Your task to perform on an android device: turn vacation reply on in the gmail app Image 0: 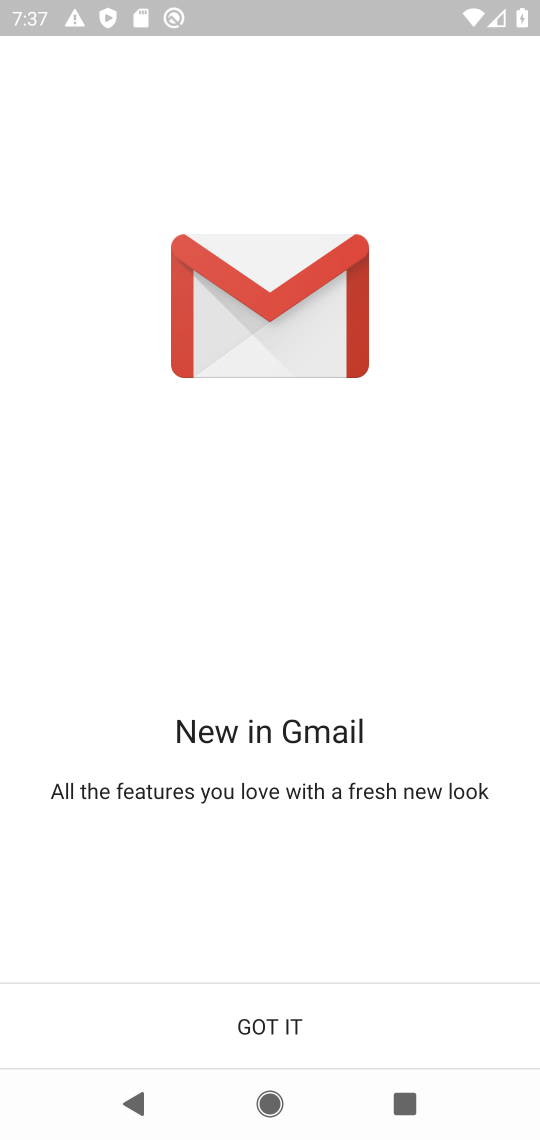
Step 0: press home button
Your task to perform on an android device: turn vacation reply on in the gmail app Image 1: 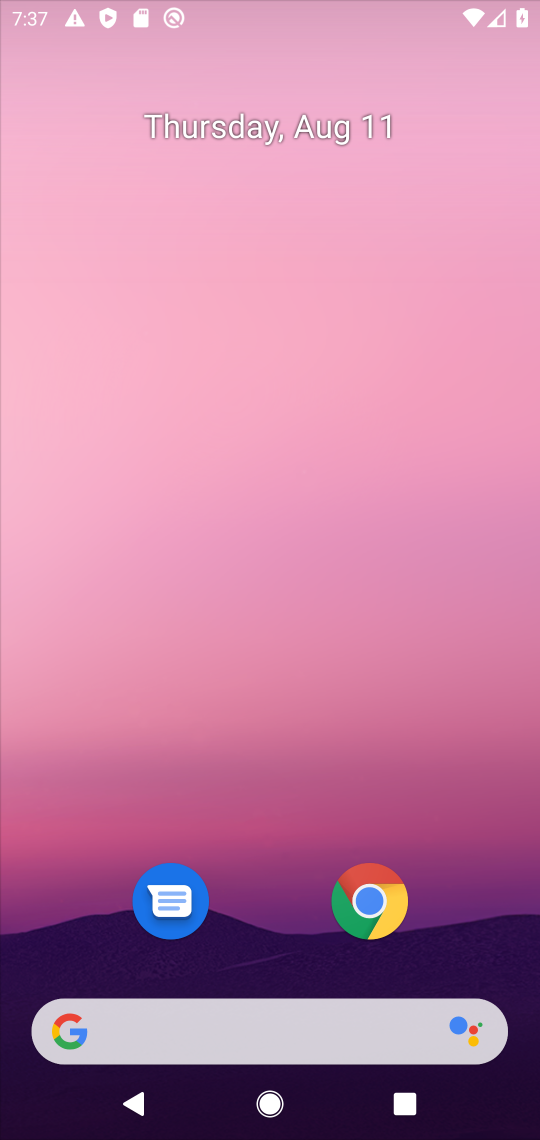
Step 1: drag from (279, 884) to (354, 330)
Your task to perform on an android device: turn vacation reply on in the gmail app Image 2: 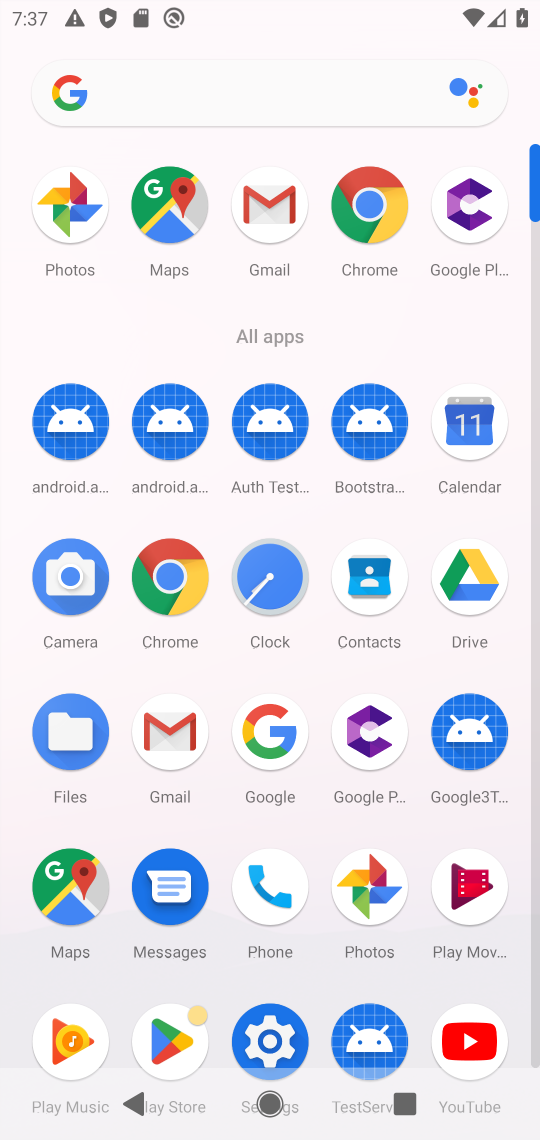
Step 2: click (284, 231)
Your task to perform on an android device: turn vacation reply on in the gmail app Image 3: 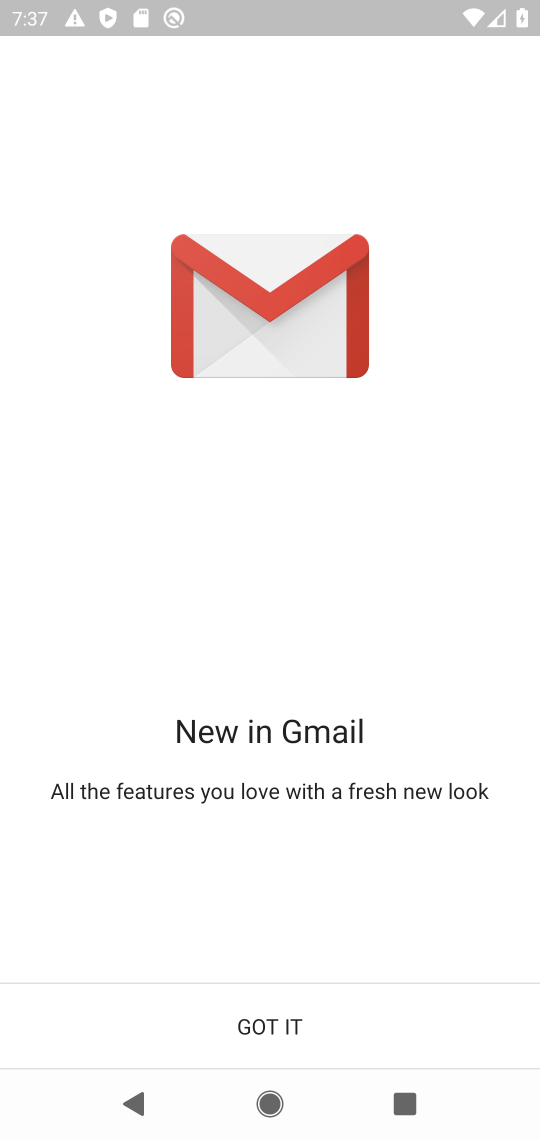
Step 3: click (322, 1055)
Your task to perform on an android device: turn vacation reply on in the gmail app Image 4: 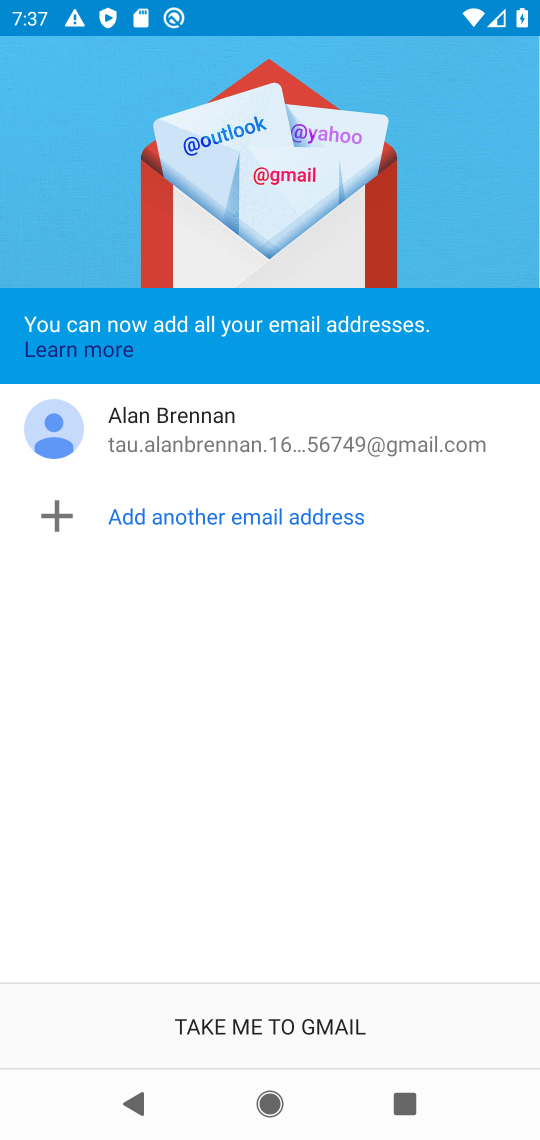
Step 4: click (322, 1049)
Your task to perform on an android device: turn vacation reply on in the gmail app Image 5: 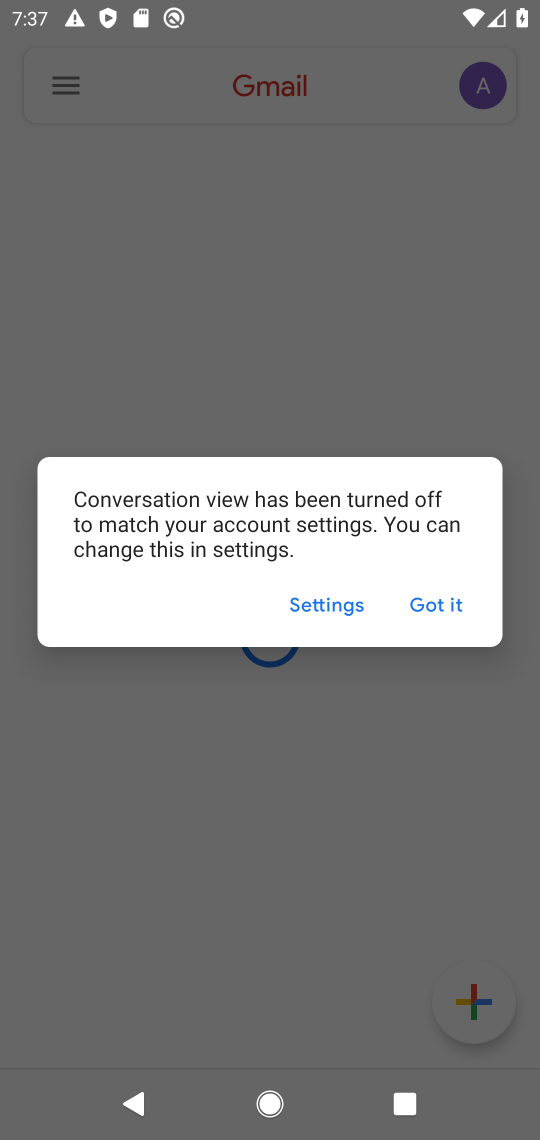
Step 5: click (443, 616)
Your task to perform on an android device: turn vacation reply on in the gmail app Image 6: 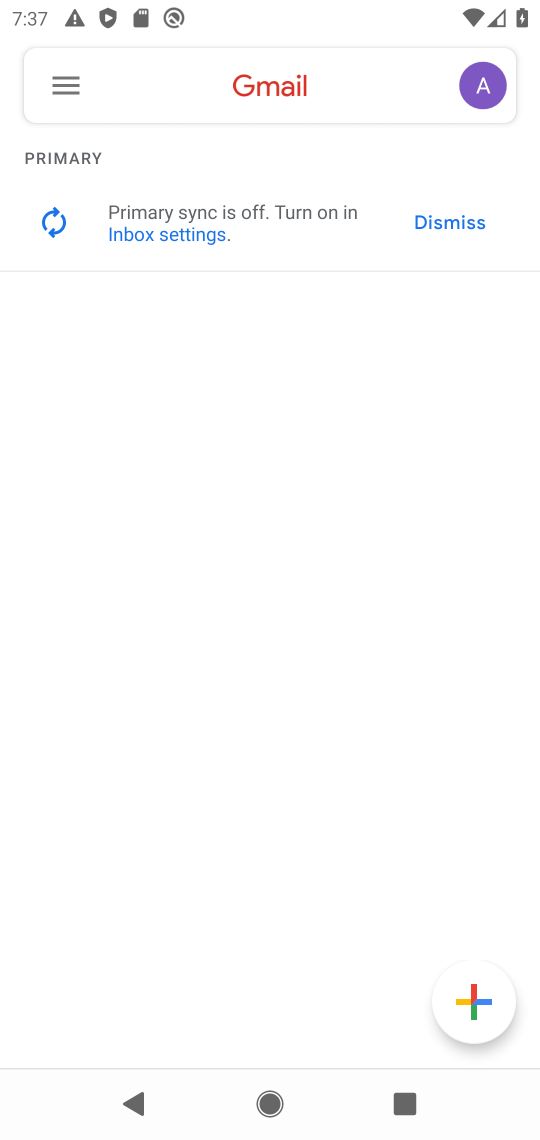
Step 6: click (55, 74)
Your task to perform on an android device: turn vacation reply on in the gmail app Image 7: 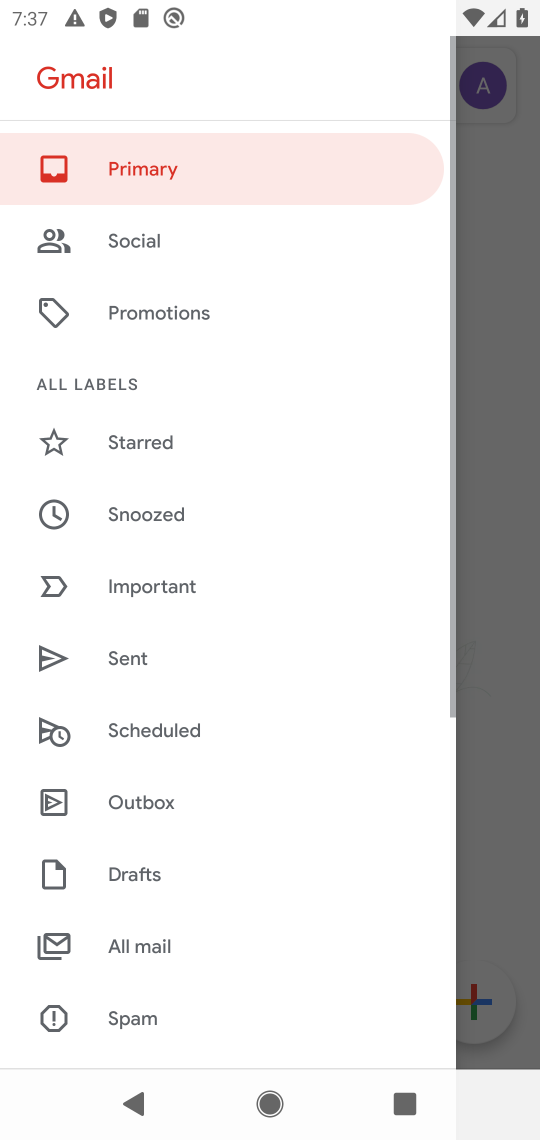
Step 7: drag from (118, 1038) to (376, 605)
Your task to perform on an android device: turn vacation reply on in the gmail app Image 8: 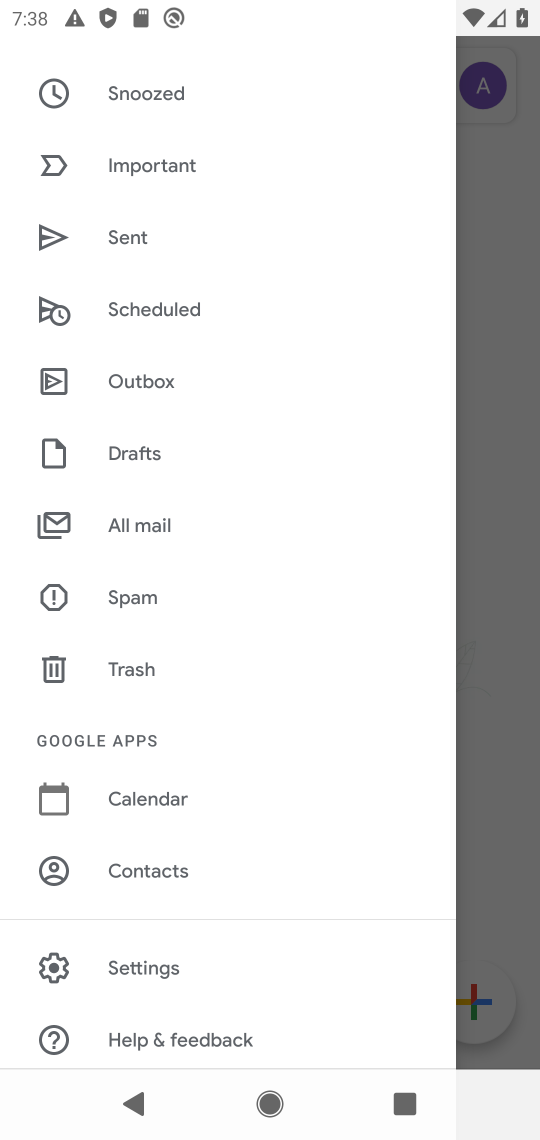
Step 8: click (160, 978)
Your task to perform on an android device: turn vacation reply on in the gmail app Image 9: 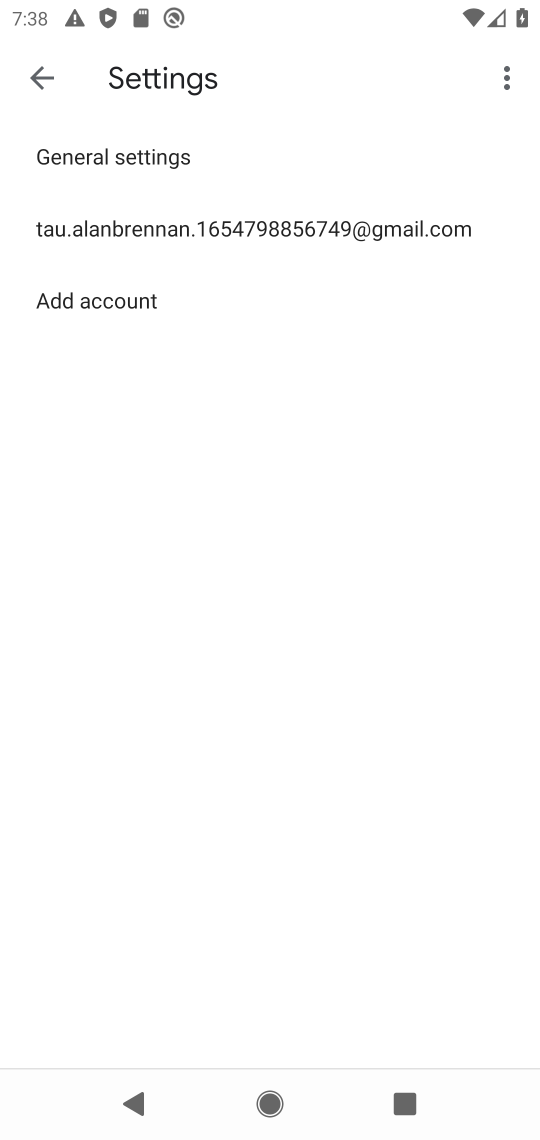
Step 9: click (184, 237)
Your task to perform on an android device: turn vacation reply on in the gmail app Image 10: 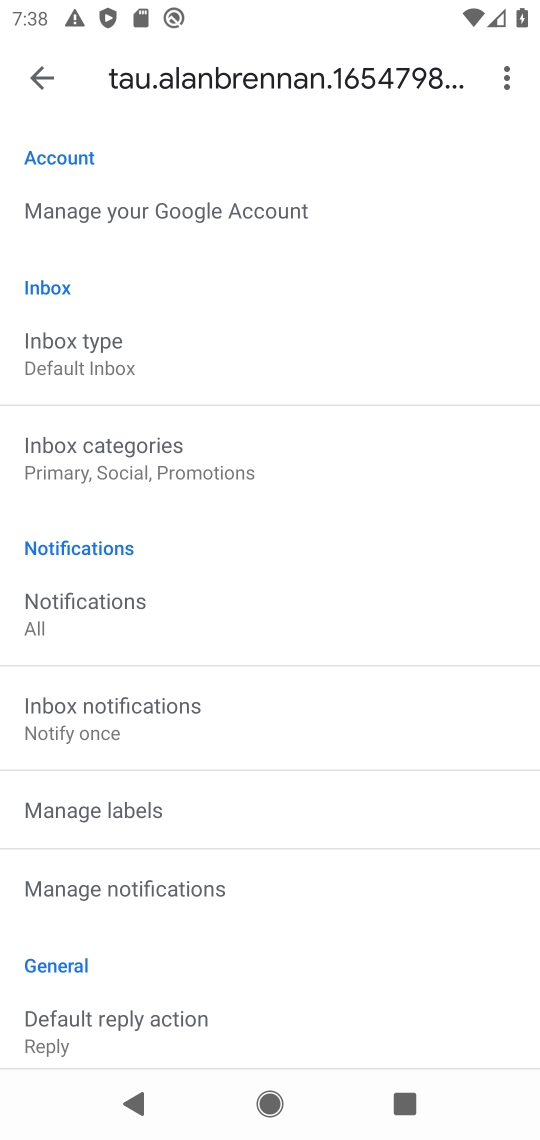
Step 10: drag from (93, 959) to (351, 407)
Your task to perform on an android device: turn vacation reply on in the gmail app Image 11: 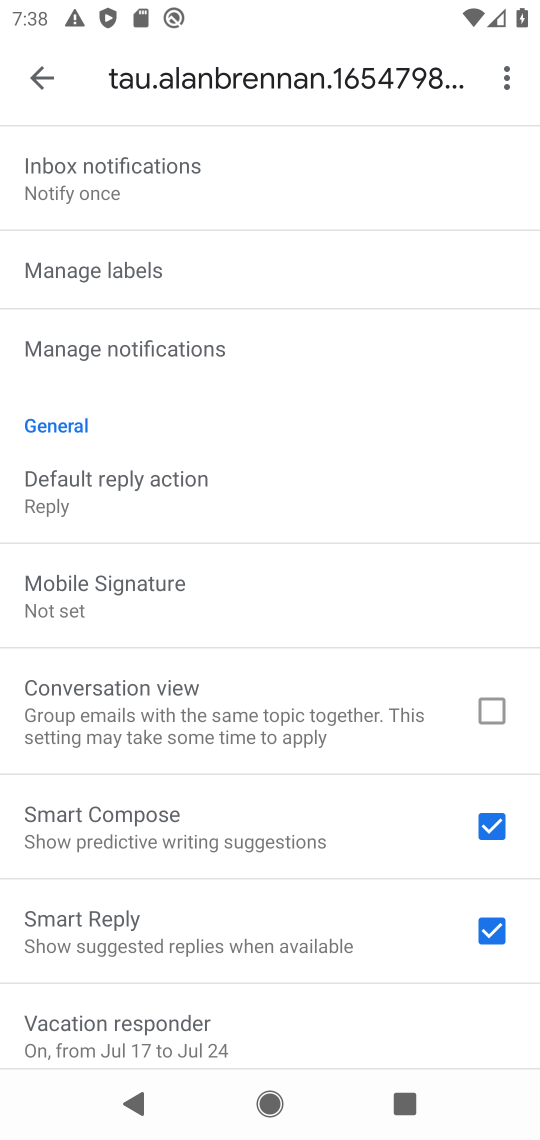
Step 11: drag from (338, 542) to (494, 273)
Your task to perform on an android device: turn vacation reply on in the gmail app Image 12: 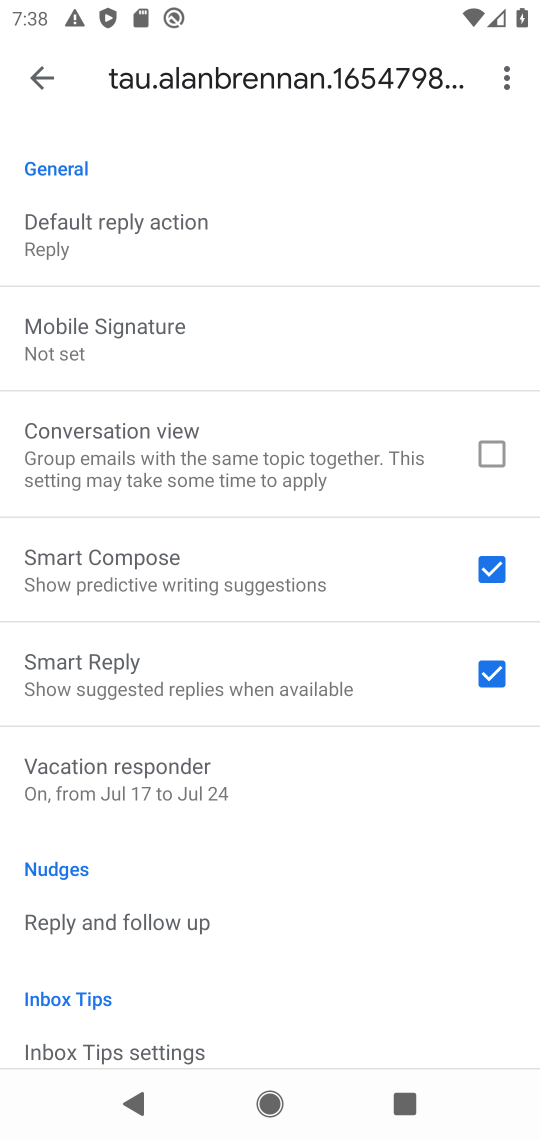
Step 12: click (246, 778)
Your task to perform on an android device: turn vacation reply on in the gmail app Image 13: 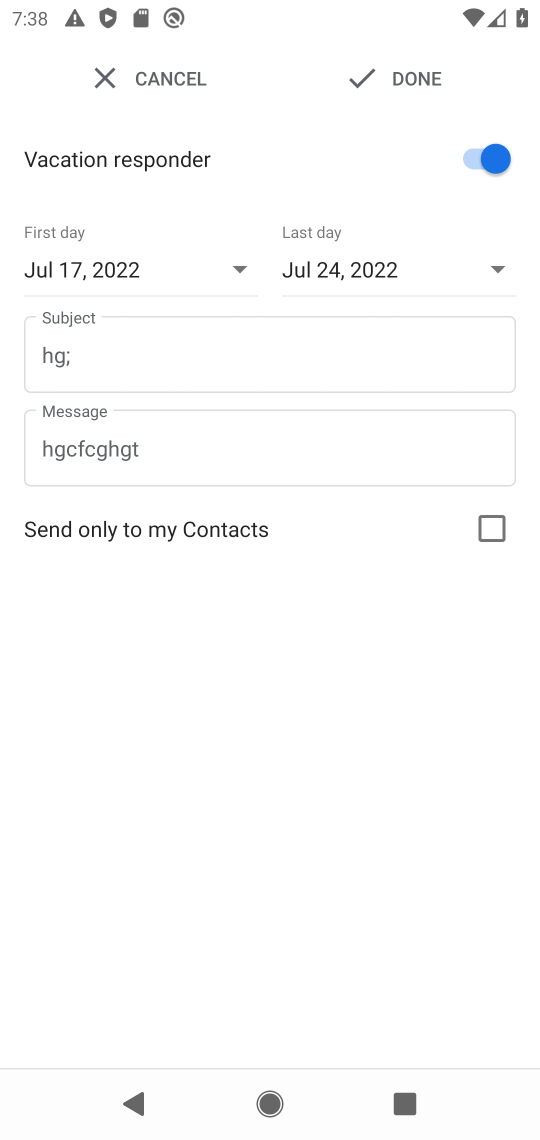
Step 13: task complete